Your task to perform on an android device: open sync settings in chrome Image 0: 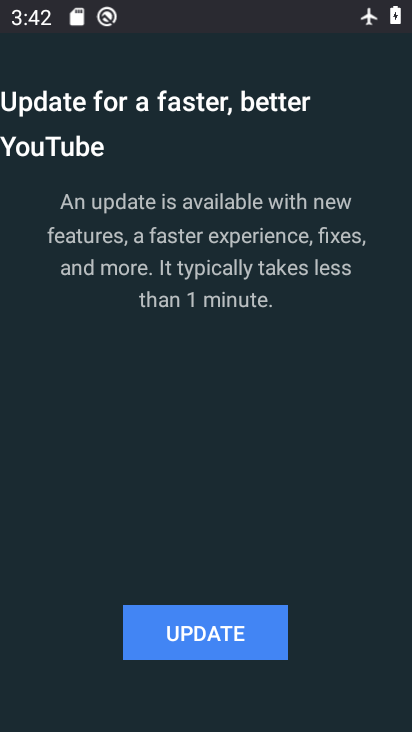
Step 0: press home button
Your task to perform on an android device: open sync settings in chrome Image 1: 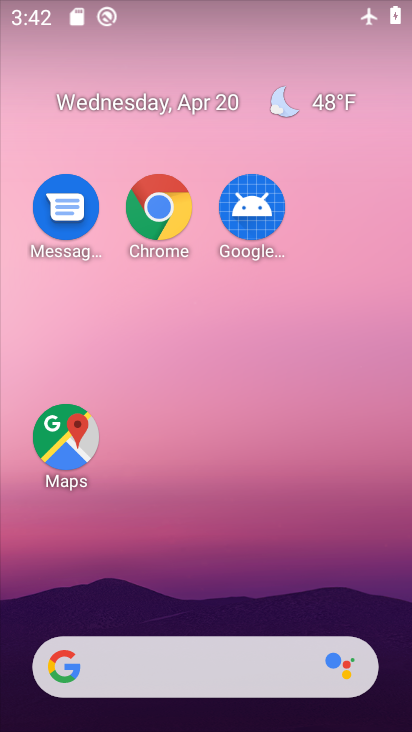
Step 1: drag from (223, 521) to (239, 16)
Your task to perform on an android device: open sync settings in chrome Image 2: 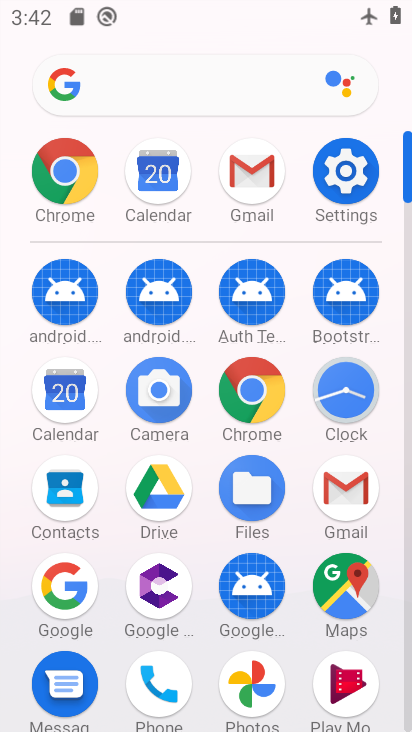
Step 2: click (370, 201)
Your task to perform on an android device: open sync settings in chrome Image 3: 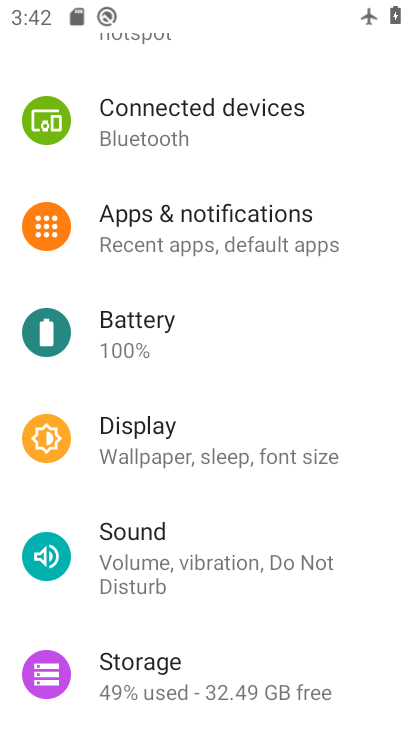
Step 3: press home button
Your task to perform on an android device: open sync settings in chrome Image 4: 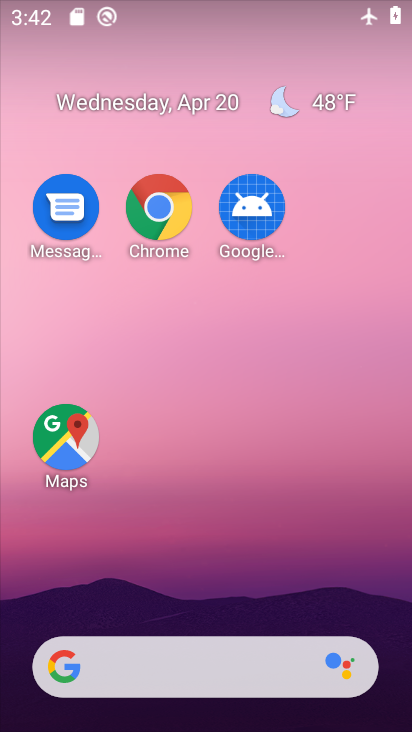
Step 4: click (171, 236)
Your task to perform on an android device: open sync settings in chrome Image 5: 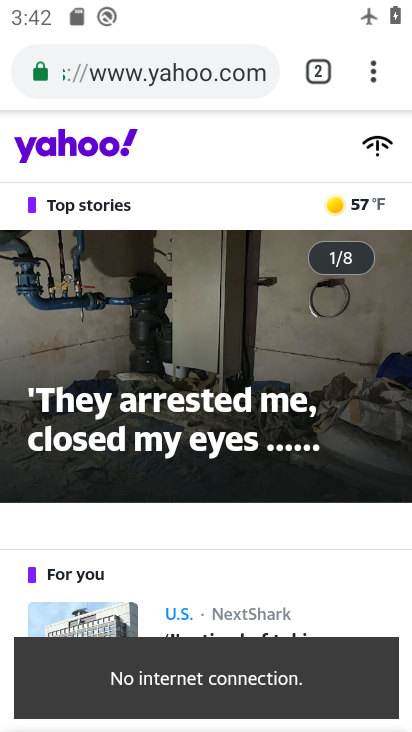
Step 5: click (365, 79)
Your task to perform on an android device: open sync settings in chrome Image 6: 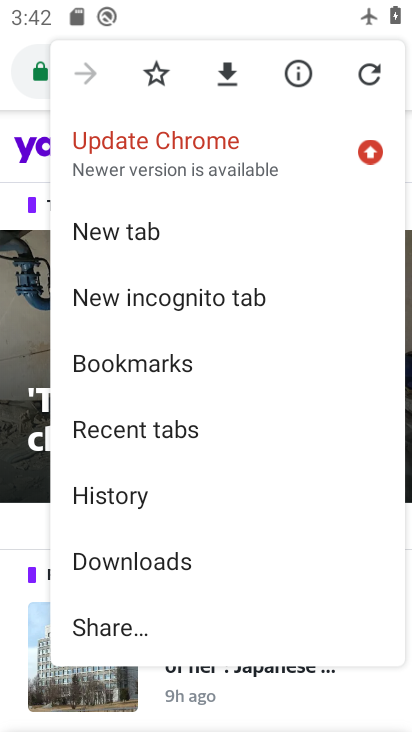
Step 6: drag from (138, 443) to (188, 96)
Your task to perform on an android device: open sync settings in chrome Image 7: 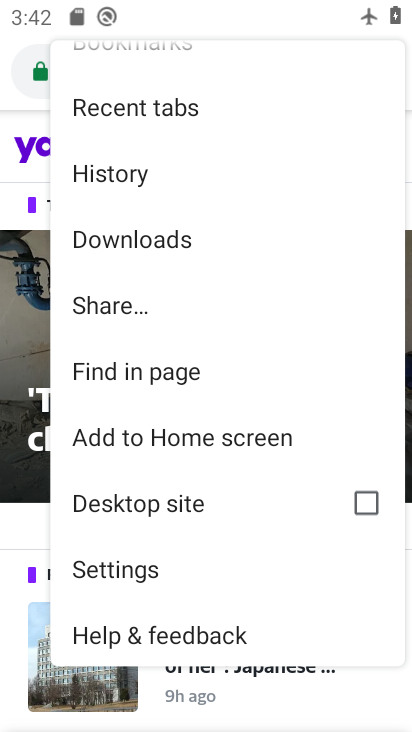
Step 7: click (244, 554)
Your task to perform on an android device: open sync settings in chrome Image 8: 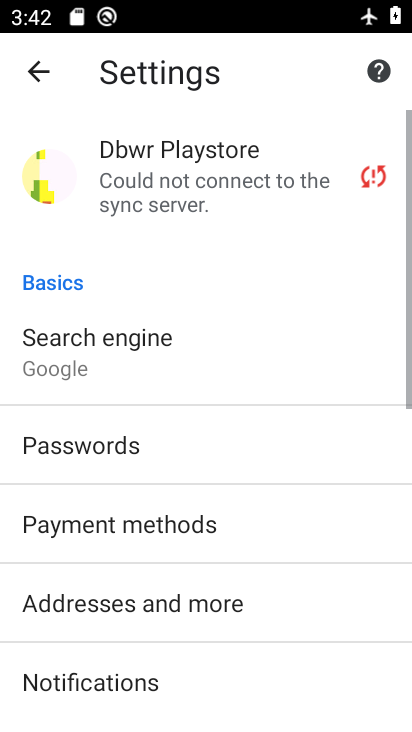
Step 8: drag from (244, 554) to (244, 378)
Your task to perform on an android device: open sync settings in chrome Image 9: 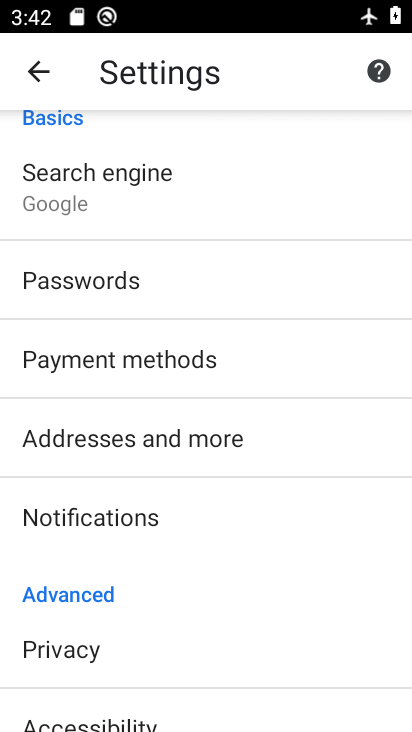
Step 9: click (211, 503)
Your task to perform on an android device: open sync settings in chrome Image 10: 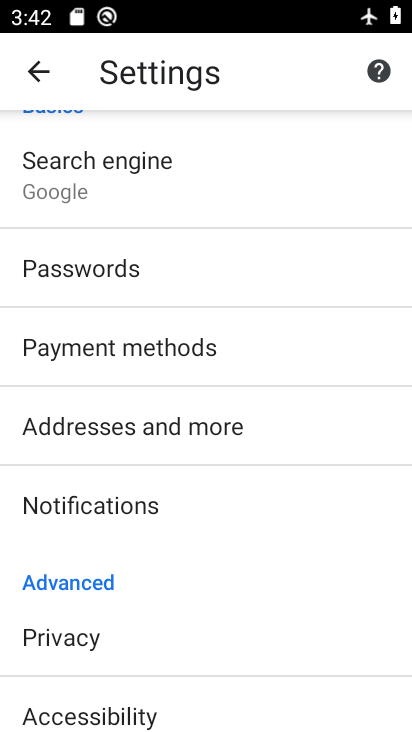
Step 10: drag from (101, 237) to (0, 514)
Your task to perform on an android device: open sync settings in chrome Image 11: 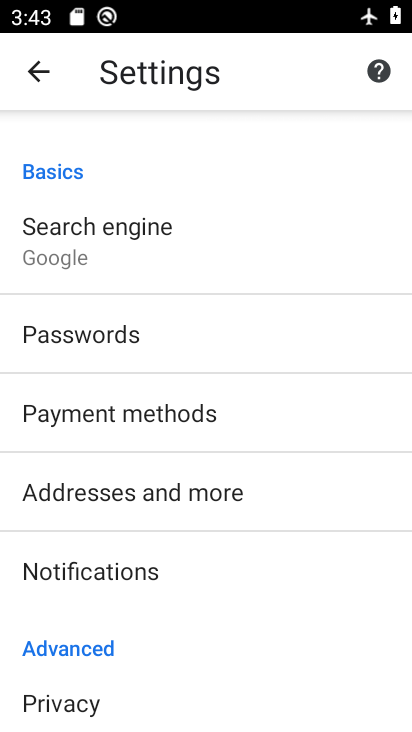
Step 11: drag from (115, 322) to (29, 714)
Your task to perform on an android device: open sync settings in chrome Image 12: 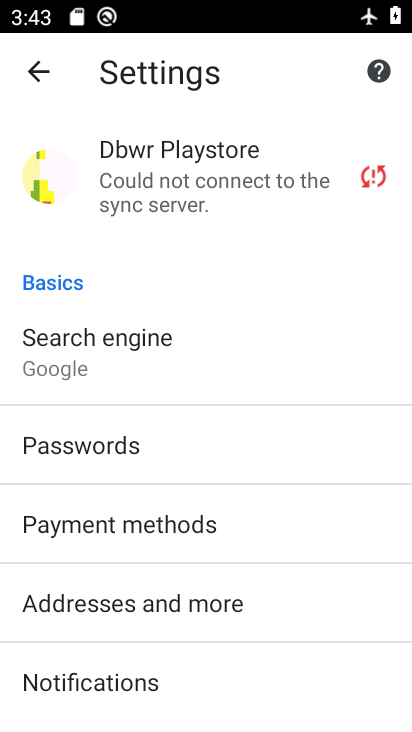
Step 12: click (243, 210)
Your task to perform on an android device: open sync settings in chrome Image 13: 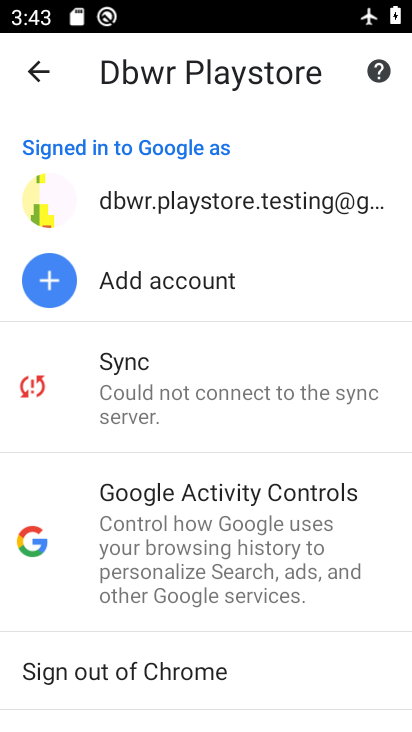
Step 13: click (259, 371)
Your task to perform on an android device: open sync settings in chrome Image 14: 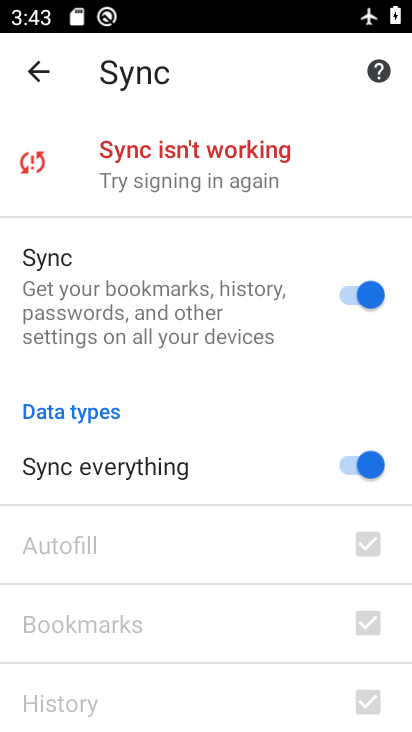
Step 14: task complete